Your task to perform on an android device: Check the news Image 0: 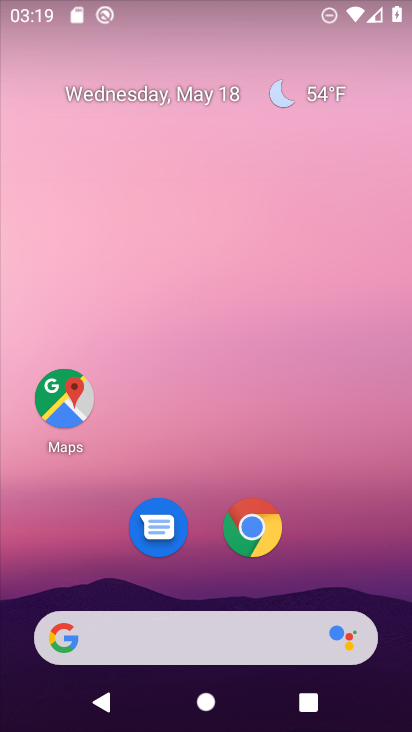
Step 0: click (259, 556)
Your task to perform on an android device: Check the news Image 1: 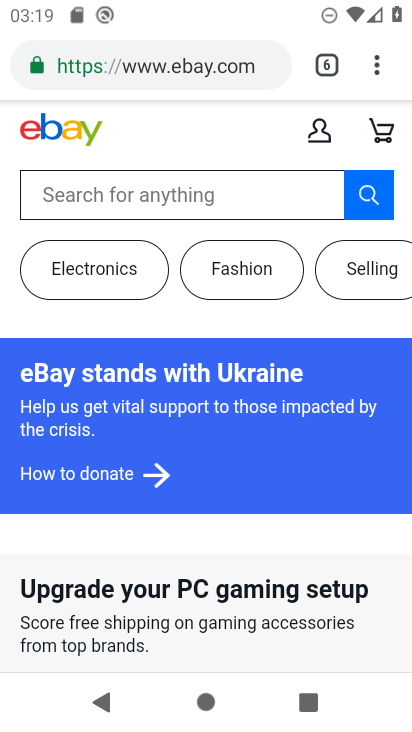
Step 1: press home button
Your task to perform on an android device: Check the news Image 2: 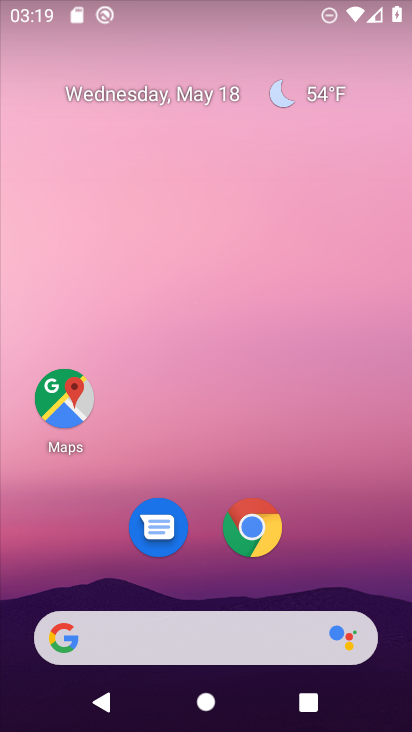
Step 2: click (210, 638)
Your task to perform on an android device: Check the news Image 3: 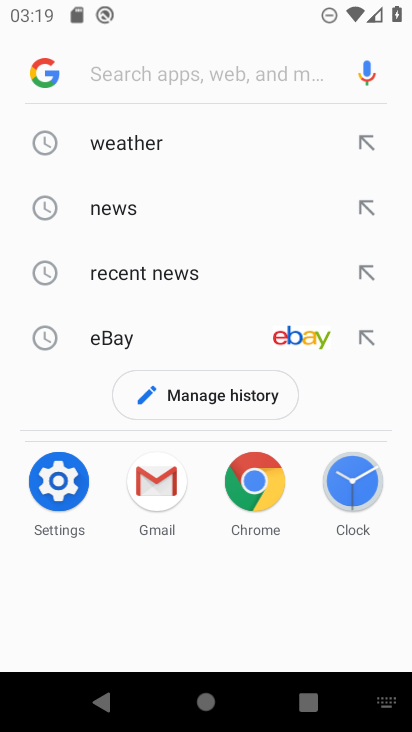
Step 3: click (118, 199)
Your task to perform on an android device: Check the news Image 4: 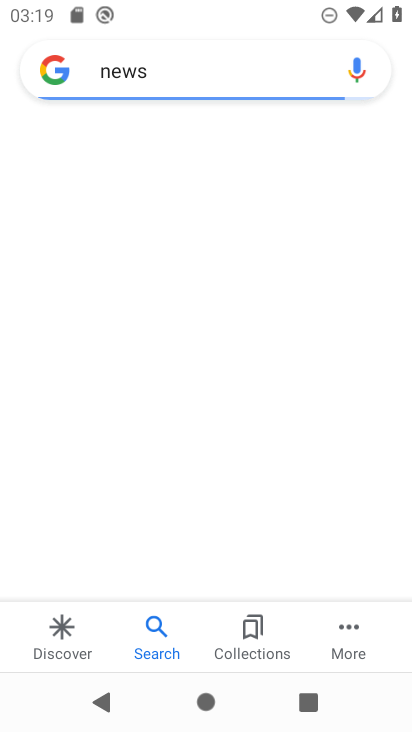
Step 4: task complete